Your task to perform on an android device: Go to Reddit.com Image 0: 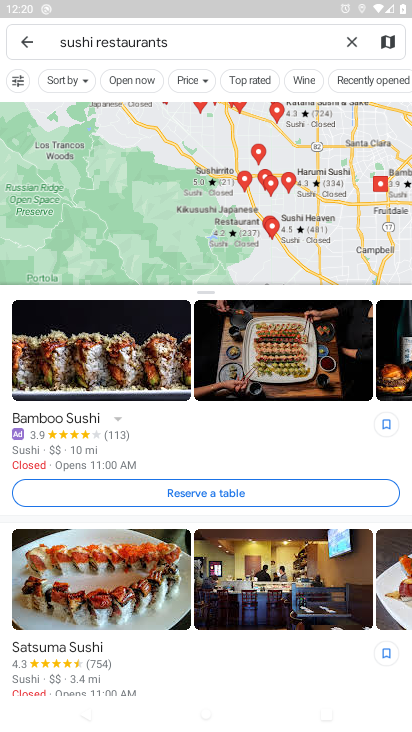
Step 0: press home button
Your task to perform on an android device: Go to Reddit.com Image 1: 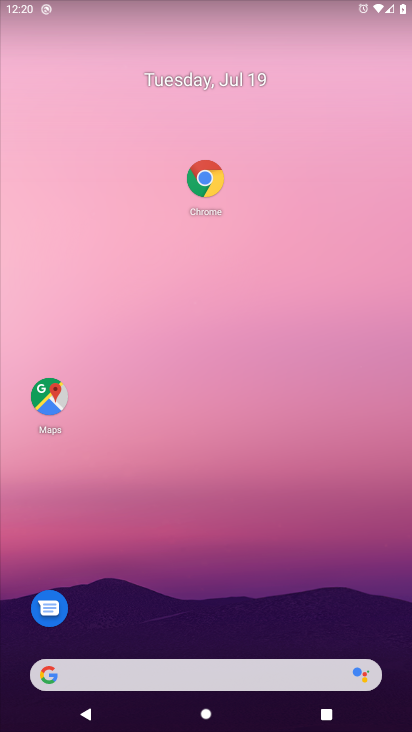
Step 1: click (84, 686)
Your task to perform on an android device: Go to Reddit.com Image 2: 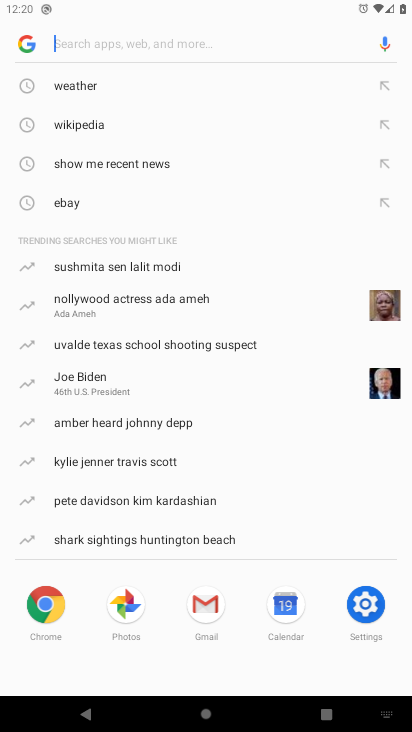
Step 2: type "Reddit.com"
Your task to perform on an android device: Go to Reddit.com Image 3: 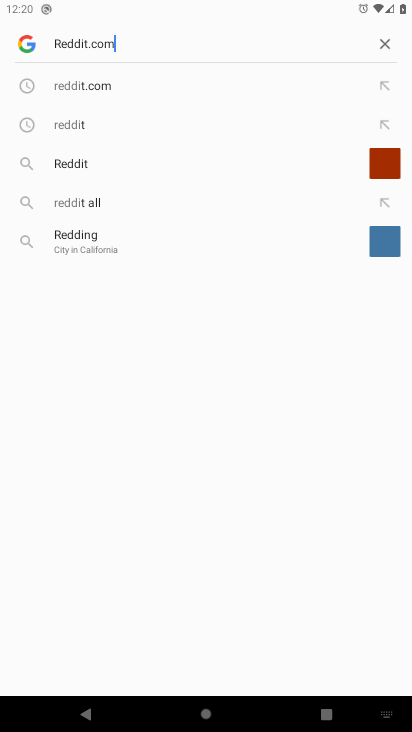
Step 3: type ""
Your task to perform on an android device: Go to Reddit.com Image 4: 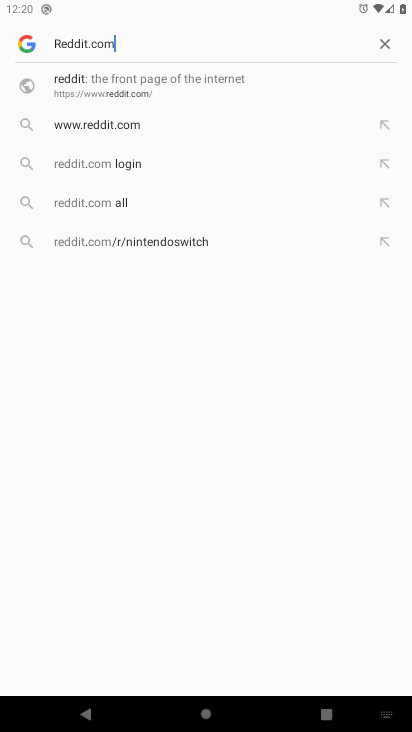
Step 4: type ""
Your task to perform on an android device: Go to Reddit.com Image 5: 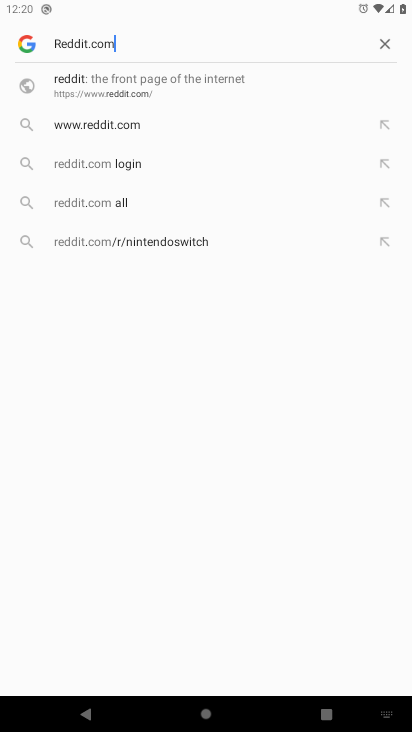
Step 5: click (147, 124)
Your task to perform on an android device: Go to Reddit.com Image 6: 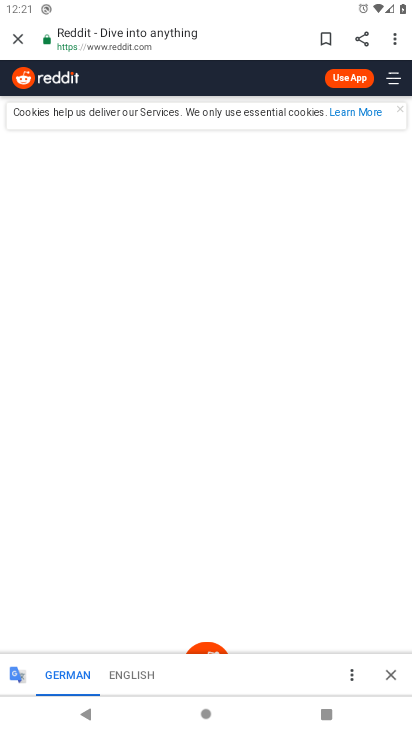
Step 6: task complete